Your task to perform on an android device: Open Google Maps Image 0: 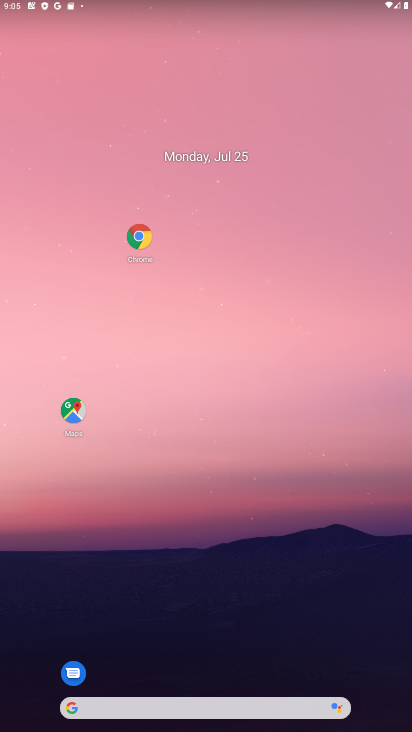
Step 0: click (59, 410)
Your task to perform on an android device: Open Google Maps Image 1: 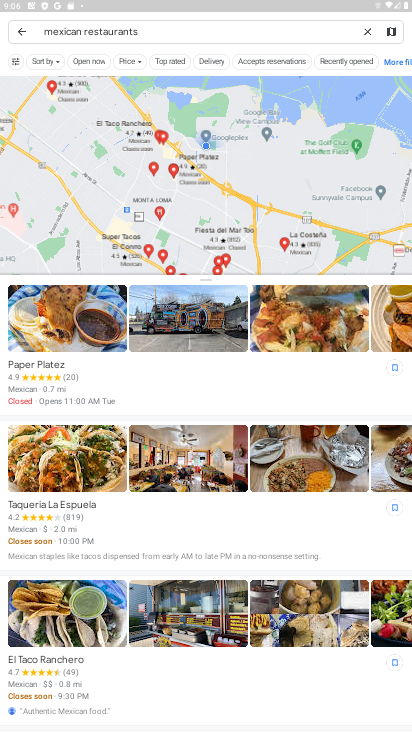
Step 1: task complete